Your task to perform on an android device: turn on the 12-hour format for clock Image 0: 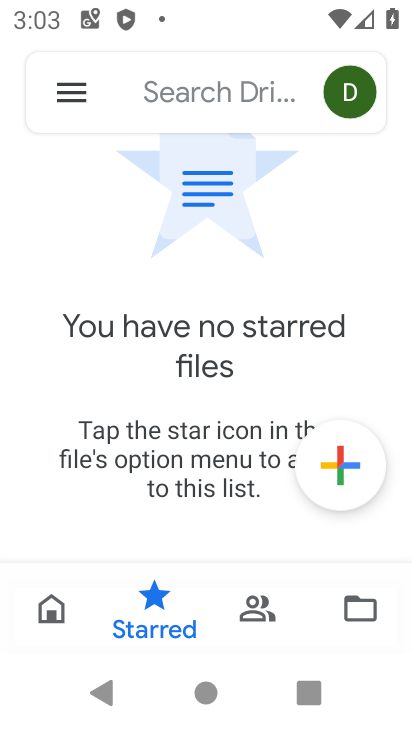
Step 0: press home button
Your task to perform on an android device: turn on the 12-hour format for clock Image 1: 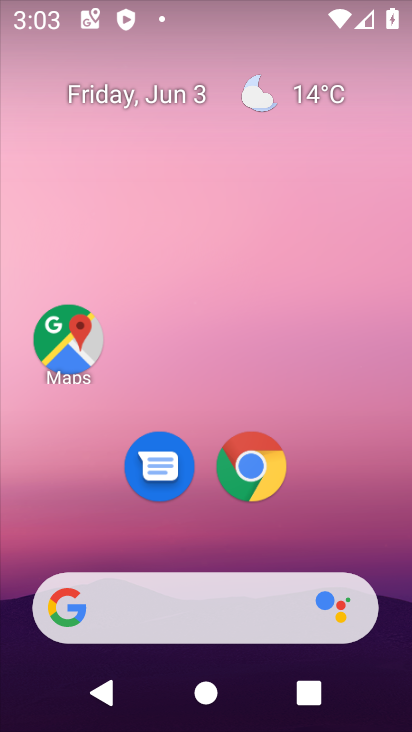
Step 1: drag from (352, 486) to (367, 105)
Your task to perform on an android device: turn on the 12-hour format for clock Image 2: 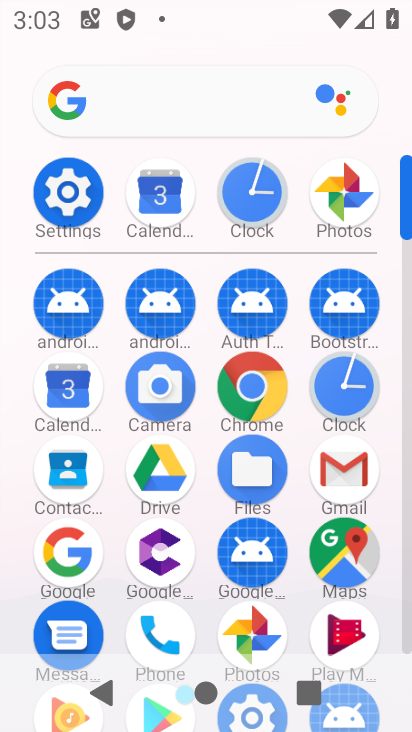
Step 2: click (225, 189)
Your task to perform on an android device: turn on the 12-hour format for clock Image 3: 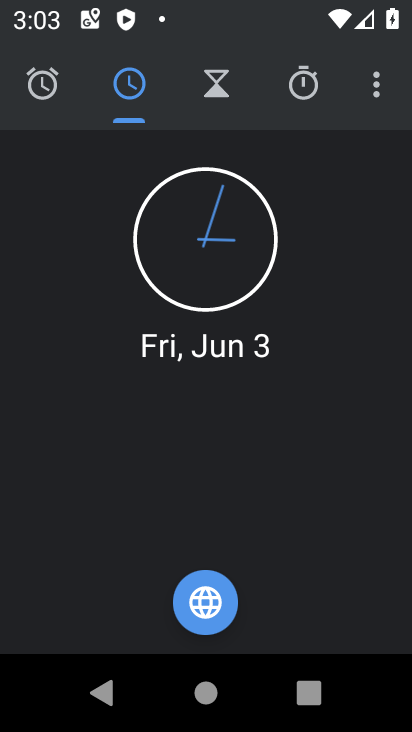
Step 3: click (381, 77)
Your task to perform on an android device: turn on the 12-hour format for clock Image 4: 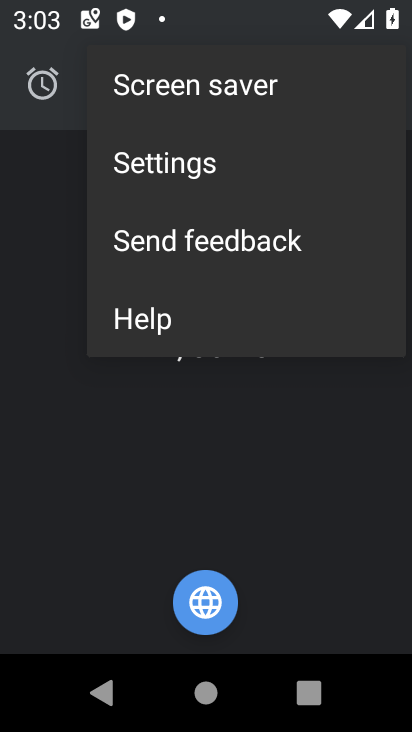
Step 4: click (252, 147)
Your task to perform on an android device: turn on the 12-hour format for clock Image 5: 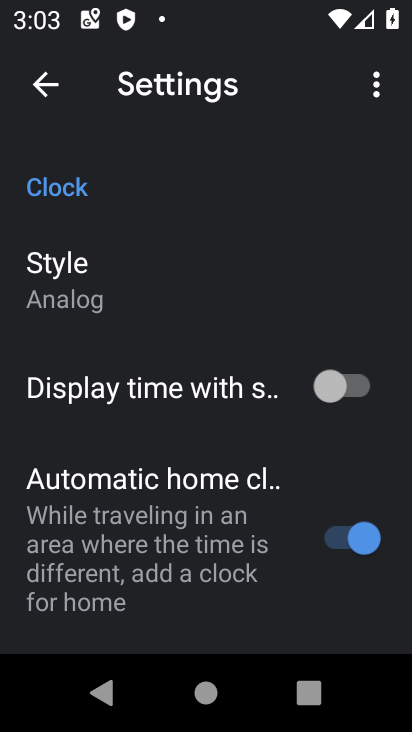
Step 5: click (252, 147)
Your task to perform on an android device: turn on the 12-hour format for clock Image 6: 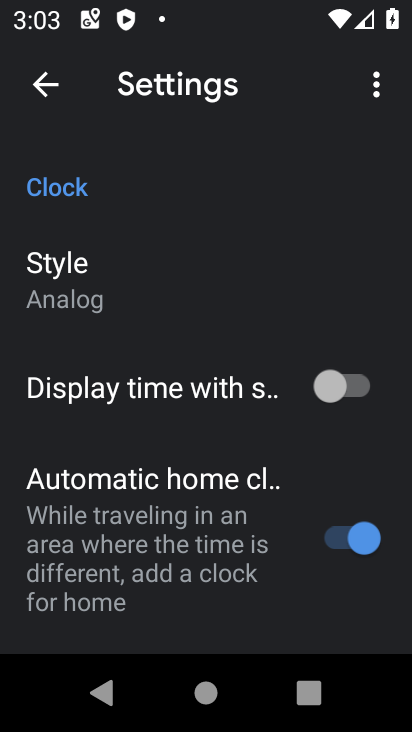
Step 6: drag from (175, 519) to (135, 248)
Your task to perform on an android device: turn on the 12-hour format for clock Image 7: 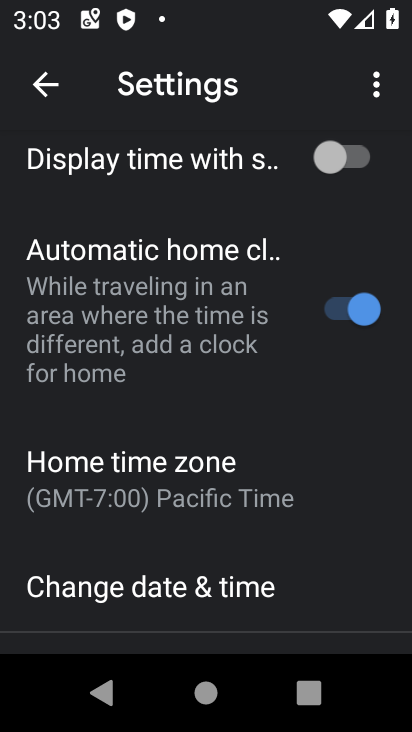
Step 7: drag from (220, 546) to (206, 442)
Your task to perform on an android device: turn on the 12-hour format for clock Image 8: 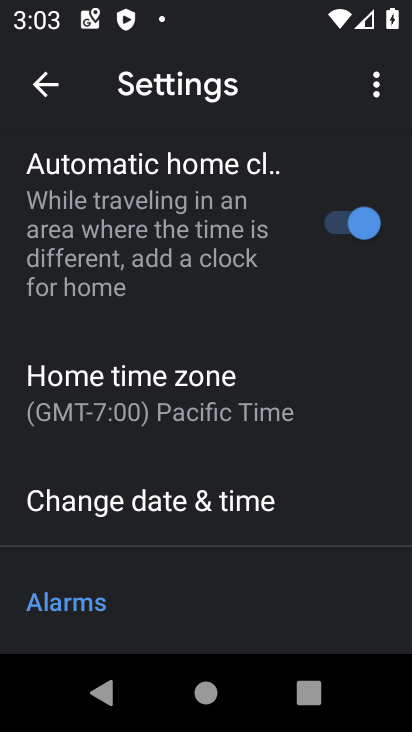
Step 8: drag from (264, 538) to (242, 327)
Your task to perform on an android device: turn on the 12-hour format for clock Image 9: 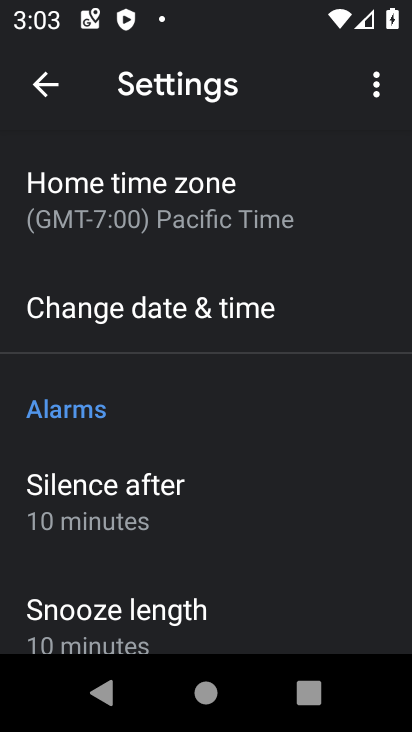
Step 9: drag from (125, 431) to (150, 127)
Your task to perform on an android device: turn on the 12-hour format for clock Image 10: 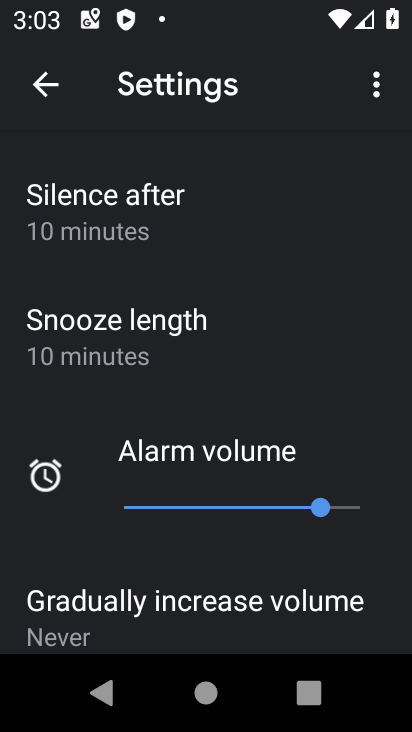
Step 10: drag from (202, 421) to (194, 203)
Your task to perform on an android device: turn on the 12-hour format for clock Image 11: 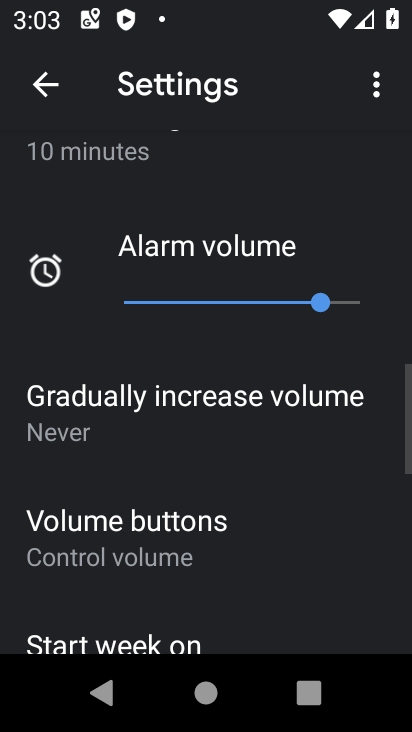
Step 11: drag from (222, 484) to (220, 172)
Your task to perform on an android device: turn on the 12-hour format for clock Image 12: 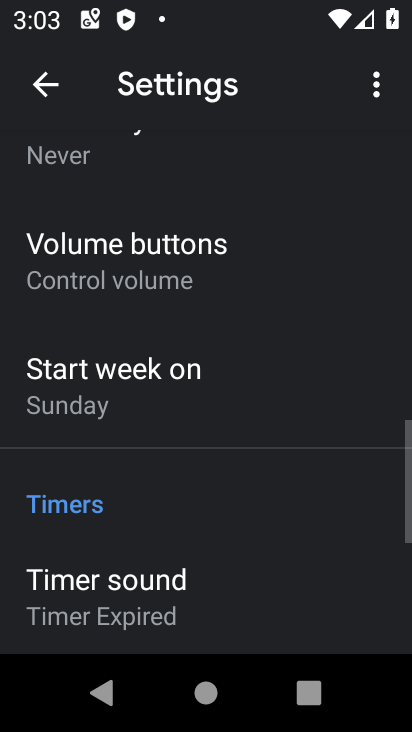
Step 12: drag from (231, 498) to (198, 163)
Your task to perform on an android device: turn on the 12-hour format for clock Image 13: 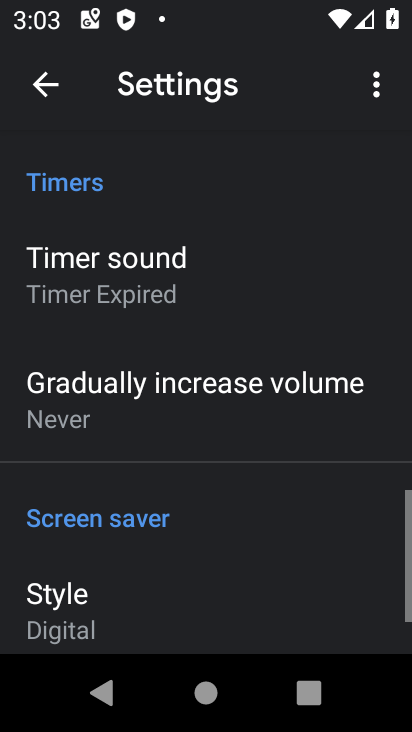
Step 13: drag from (249, 508) to (212, 185)
Your task to perform on an android device: turn on the 12-hour format for clock Image 14: 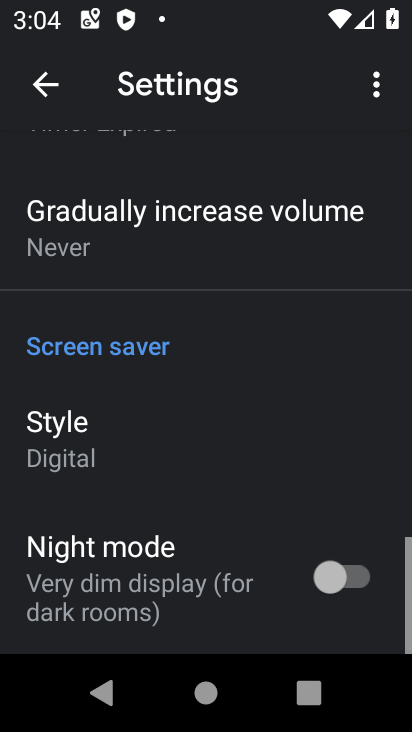
Step 14: drag from (211, 513) to (182, 269)
Your task to perform on an android device: turn on the 12-hour format for clock Image 15: 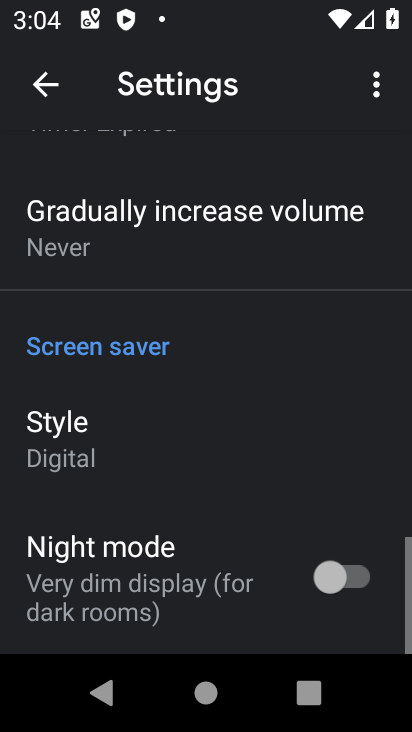
Step 15: drag from (270, 190) to (296, 504)
Your task to perform on an android device: turn on the 12-hour format for clock Image 16: 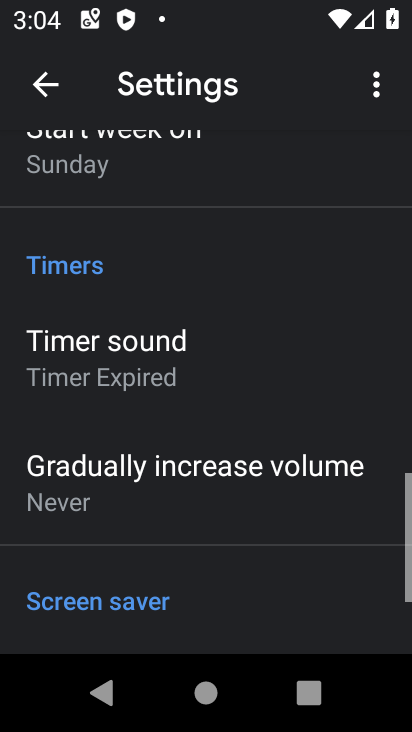
Step 16: drag from (321, 413) to (321, 503)
Your task to perform on an android device: turn on the 12-hour format for clock Image 17: 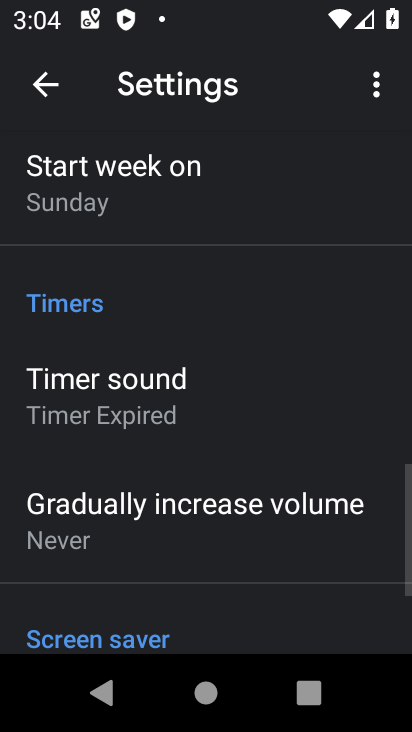
Step 17: drag from (340, 198) to (351, 545)
Your task to perform on an android device: turn on the 12-hour format for clock Image 18: 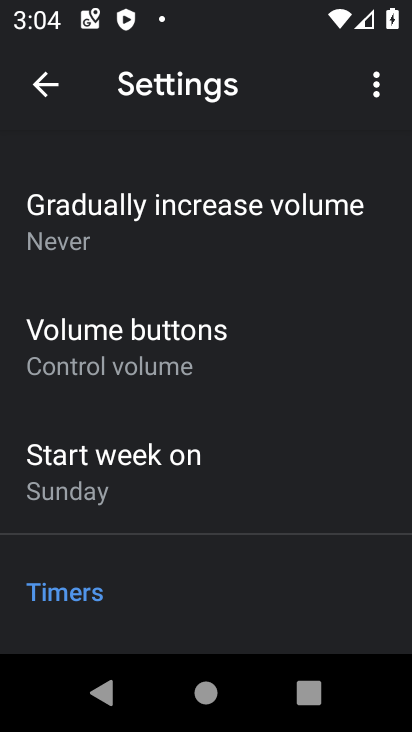
Step 18: drag from (313, 237) to (316, 506)
Your task to perform on an android device: turn on the 12-hour format for clock Image 19: 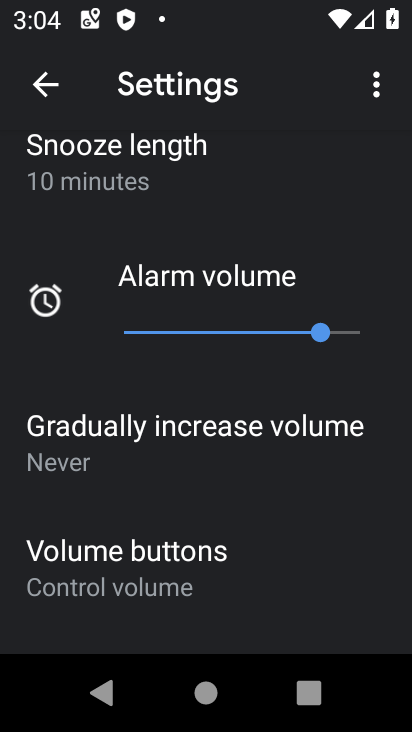
Step 19: drag from (278, 221) to (289, 522)
Your task to perform on an android device: turn on the 12-hour format for clock Image 20: 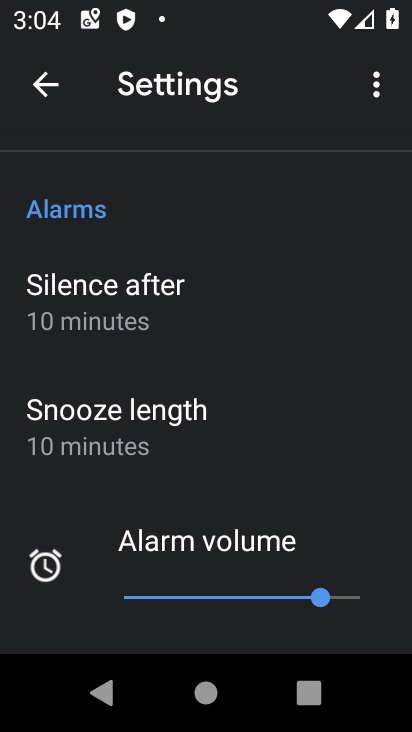
Step 20: drag from (279, 315) to (277, 565)
Your task to perform on an android device: turn on the 12-hour format for clock Image 21: 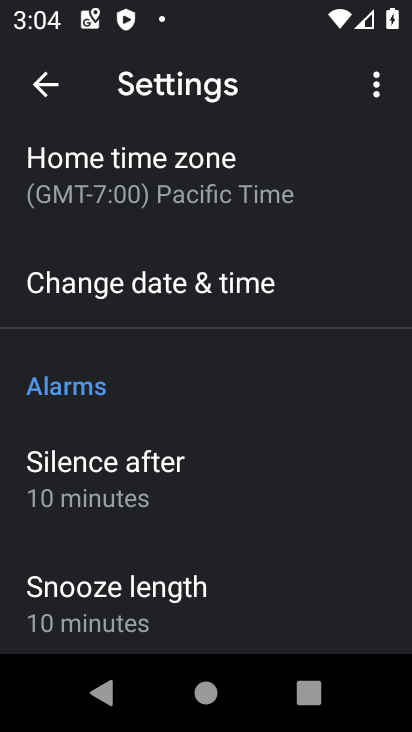
Step 21: click (276, 281)
Your task to perform on an android device: turn on the 12-hour format for clock Image 22: 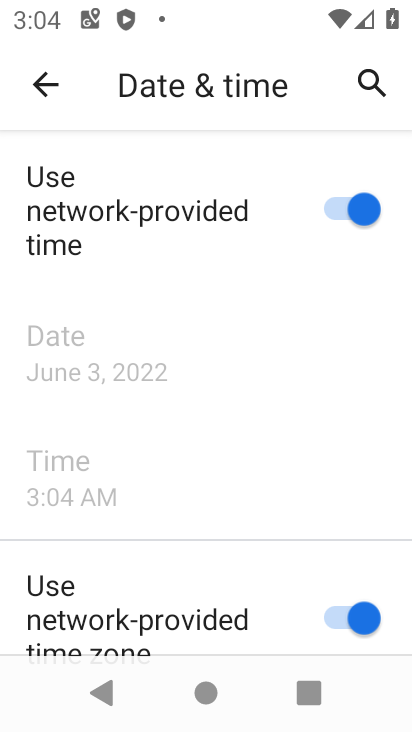
Step 22: task complete